Your task to perform on an android device: set an alarm Image 0: 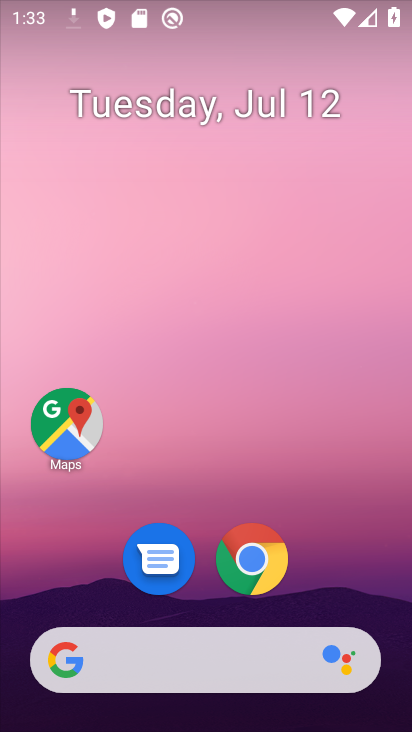
Step 0: drag from (343, 567) to (322, 67)
Your task to perform on an android device: set an alarm Image 1: 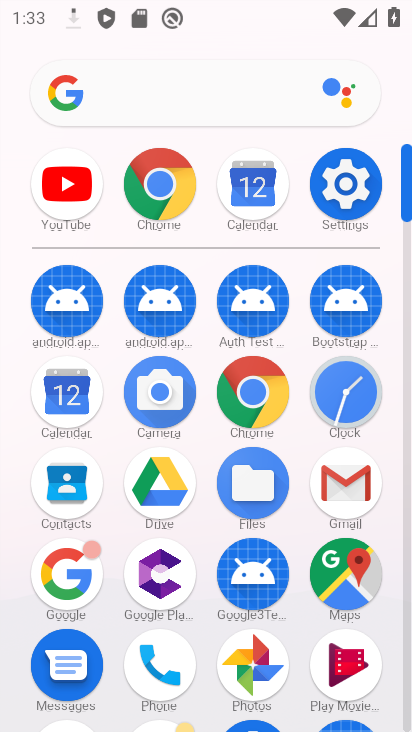
Step 1: click (356, 401)
Your task to perform on an android device: set an alarm Image 2: 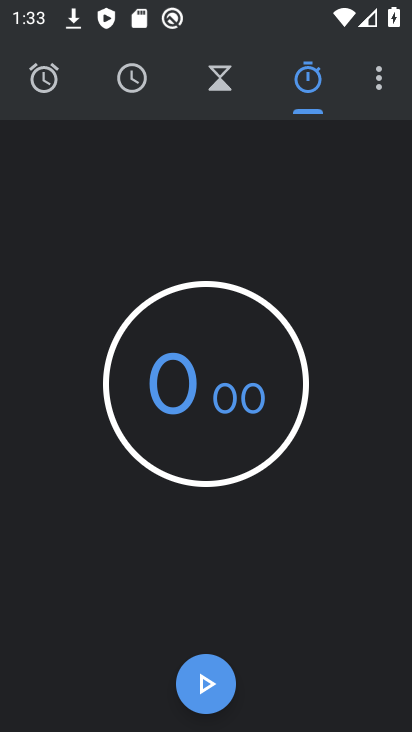
Step 2: click (45, 81)
Your task to perform on an android device: set an alarm Image 3: 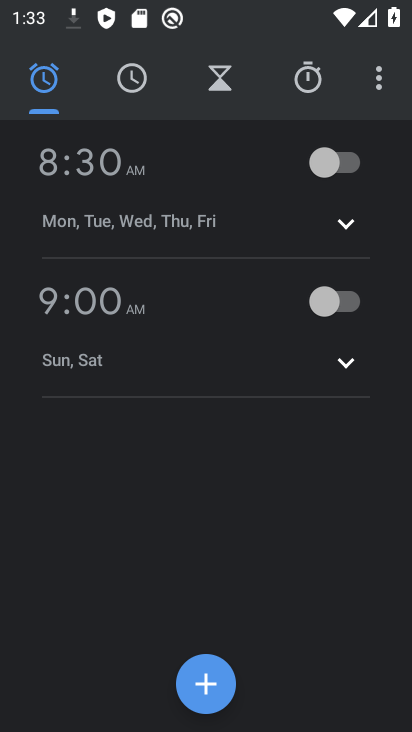
Step 3: click (219, 679)
Your task to perform on an android device: set an alarm Image 4: 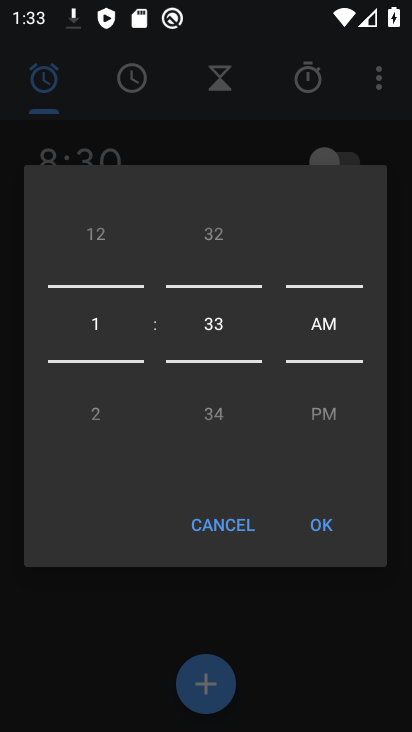
Step 4: click (311, 529)
Your task to perform on an android device: set an alarm Image 5: 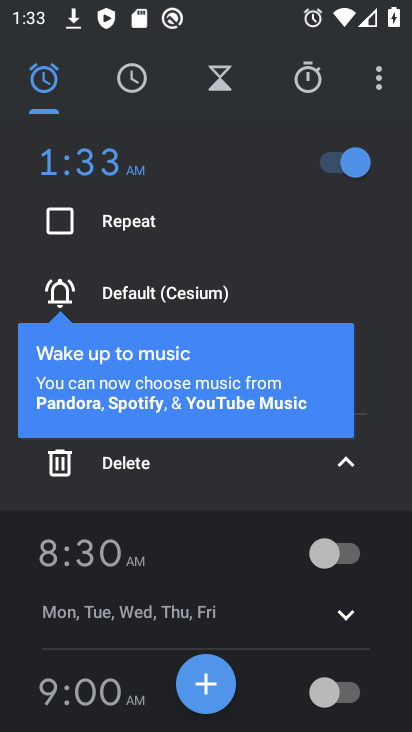
Step 5: task complete